Your task to perform on an android device: Open eBay Image 0: 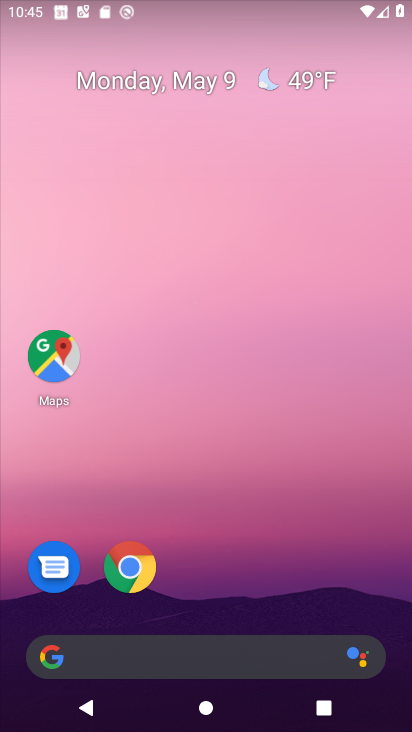
Step 0: drag from (149, 632) to (163, 145)
Your task to perform on an android device: Open eBay Image 1: 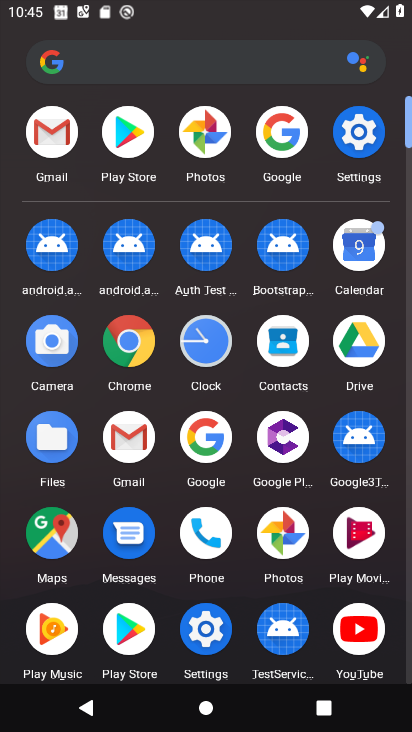
Step 1: click (219, 433)
Your task to perform on an android device: Open eBay Image 2: 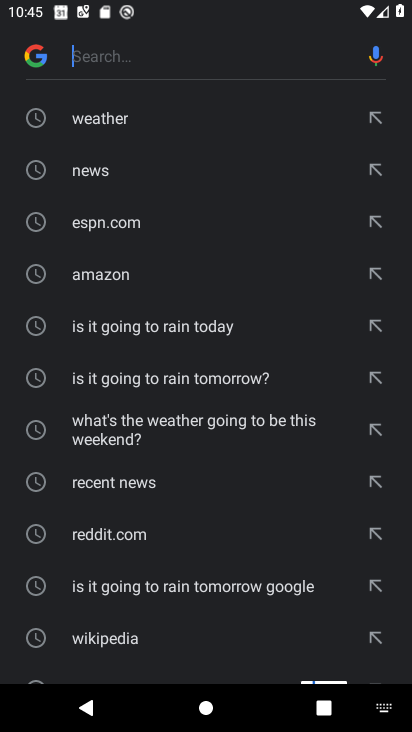
Step 2: click (118, 61)
Your task to perform on an android device: Open eBay Image 3: 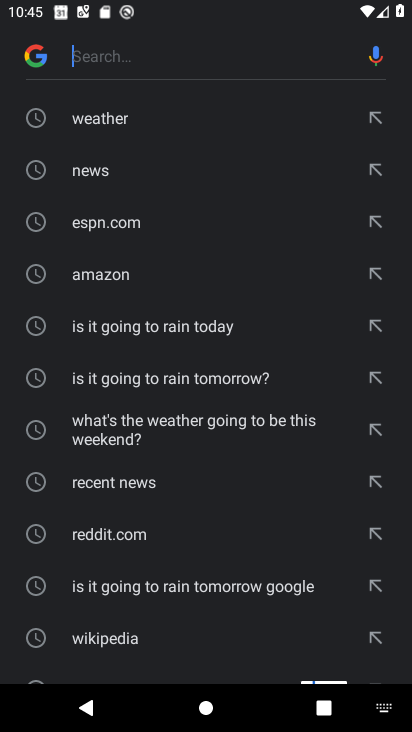
Step 3: type "ebay.com"
Your task to perform on an android device: Open eBay Image 4: 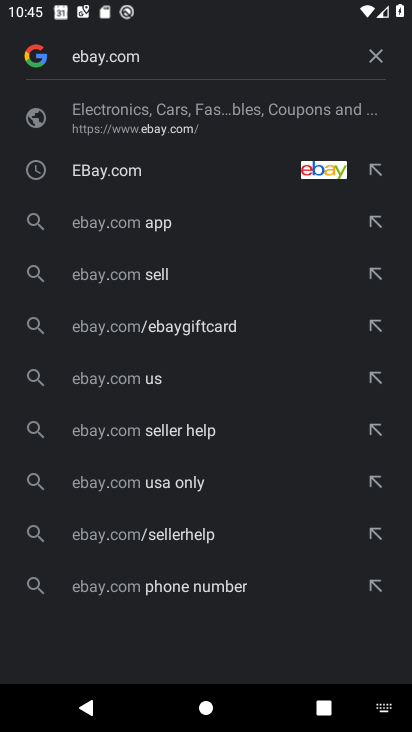
Step 4: click (109, 174)
Your task to perform on an android device: Open eBay Image 5: 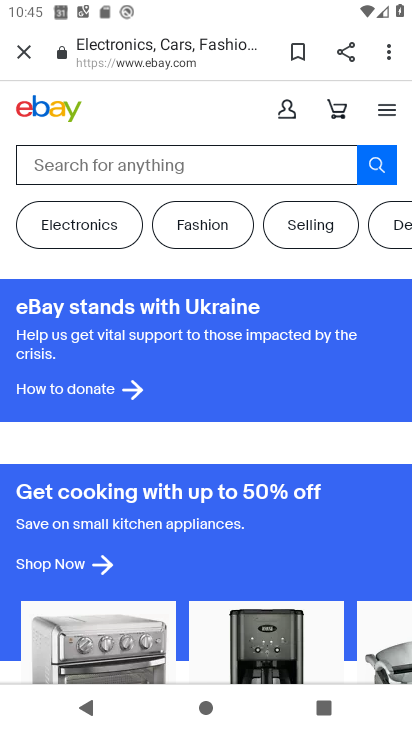
Step 5: task complete